Your task to perform on an android device: Check the weather Image 0: 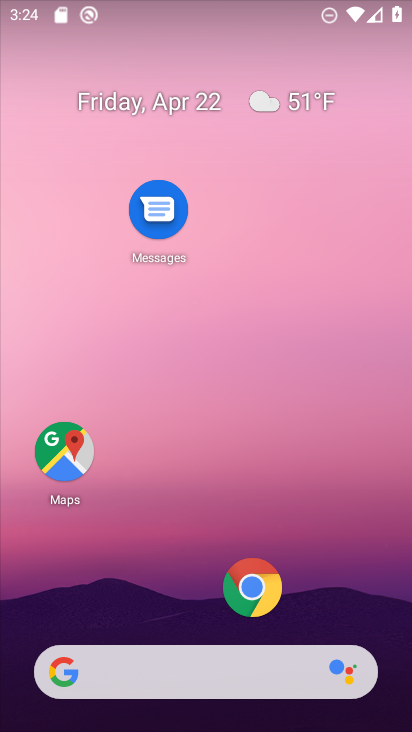
Step 0: drag from (195, 589) to (273, 87)
Your task to perform on an android device: Check the weather Image 1: 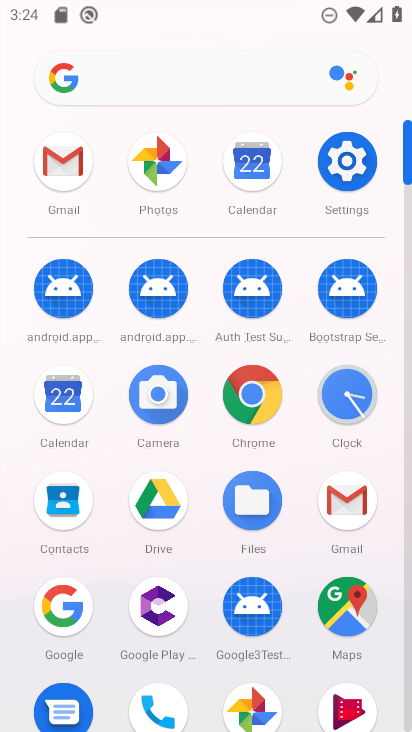
Step 1: click (51, 620)
Your task to perform on an android device: Check the weather Image 2: 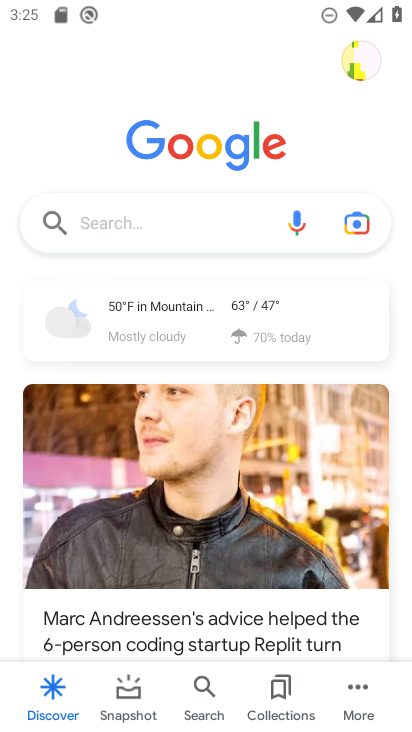
Step 2: click (167, 298)
Your task to perform on an android device: Check the weather Image 3: 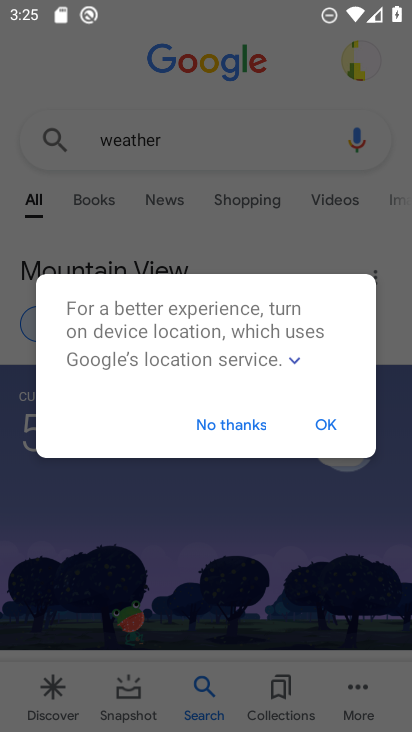
Step 3: click (329, 421)
Your task to perform on an android device: Check the weather Image 4: 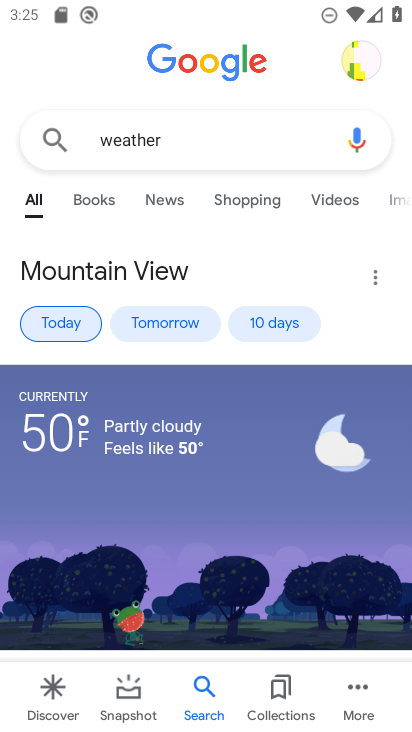
Step 4: task complete